Your task to perform on an android device: Open Chrome and go to settings Image 0: 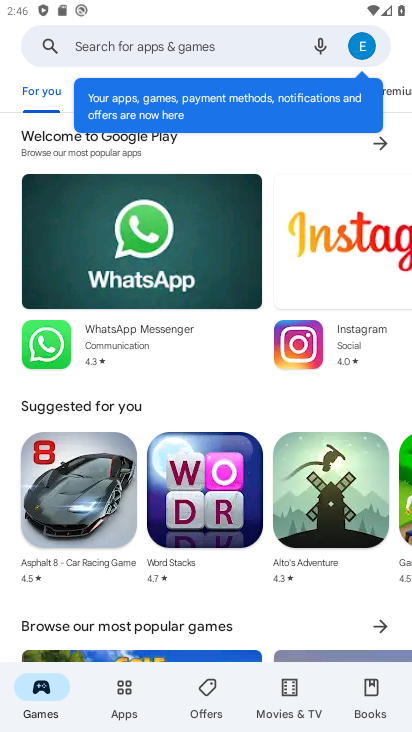
Step 0: press back button
Your task to perform on an android device: Open Chrome and go to settings Image 1: 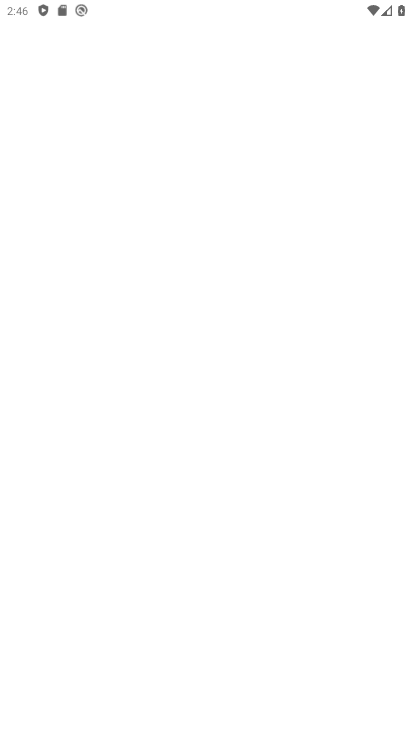
Step 1: press back button
Your task to perform on an android device: Open Chrome and go to settings Image 2: 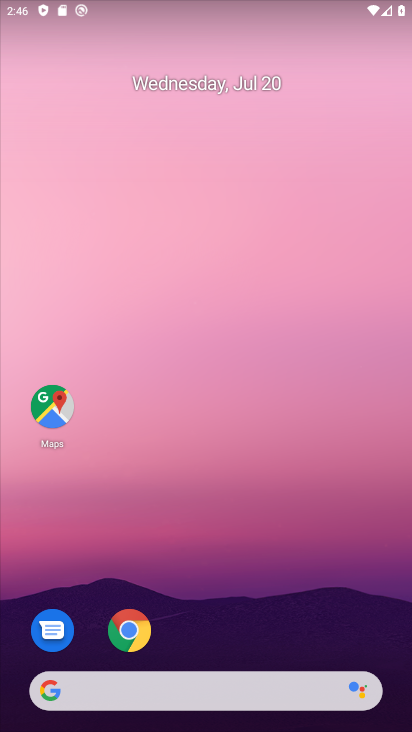
Step 2: drag from (280, 403) to (280, 139)
Your task to perform on an android device: Open Chrome and go to settings Image 3: 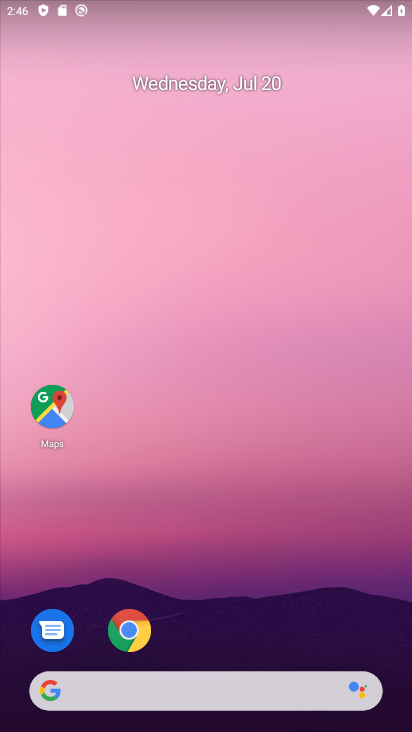
Step 3: drag from (253, 545) to (241, 58)
Your task to perform on an android device: Open Chrome and go to settings Image 4: 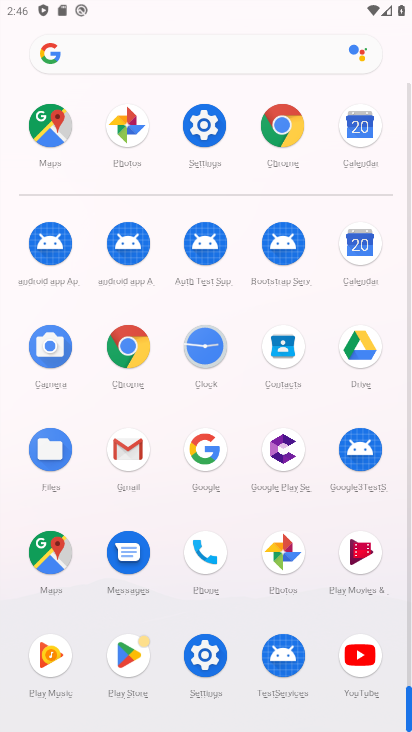
Step 4: click (208, 128)
Your task to perform on an android device: Open Chrome and go to settings Image 5: 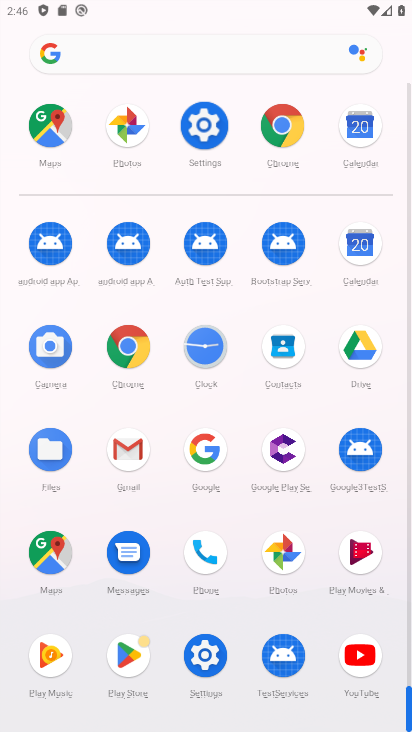
Step 5: click (208, 128)
Your task to perform on an android device: Open Chrome and go to settings Image 6: 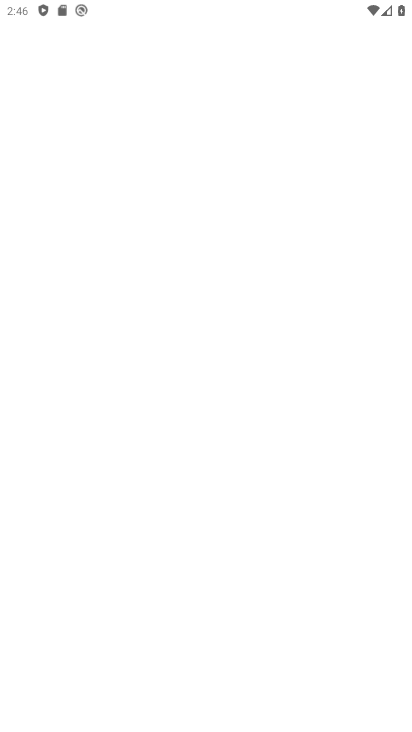
Step 6: click (208, 128)
Your task to perform on an android device: Open Chrome and go to settings Image 7: 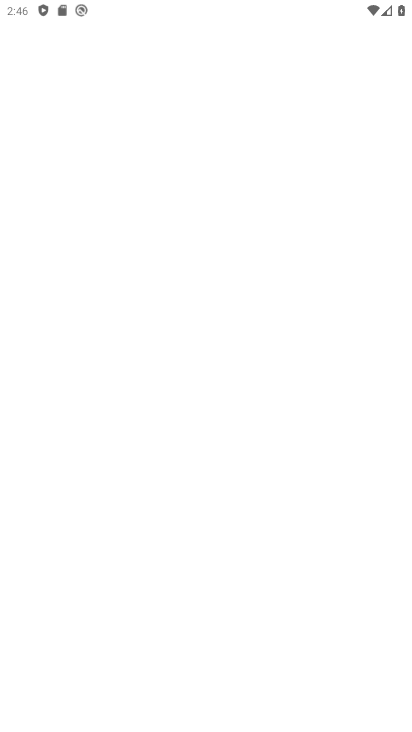
Step 7: click (208, 128)
Your task to perform on an android device: Open Chrome and go to settings Image 8: 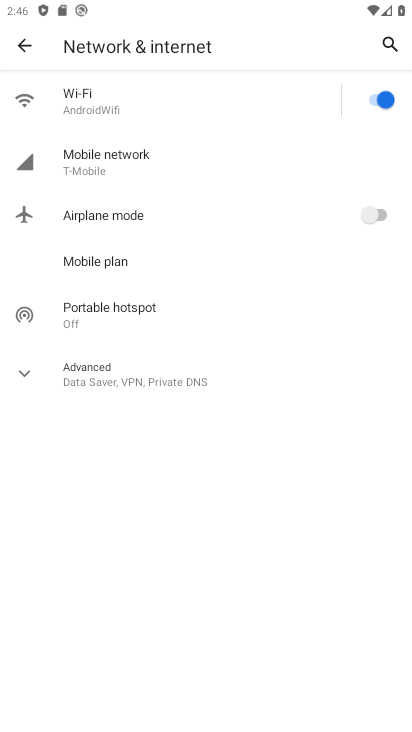
Step 8: click (25, 45)
Your task to perform on an android device: Open Chrome and go to settings Image 9: 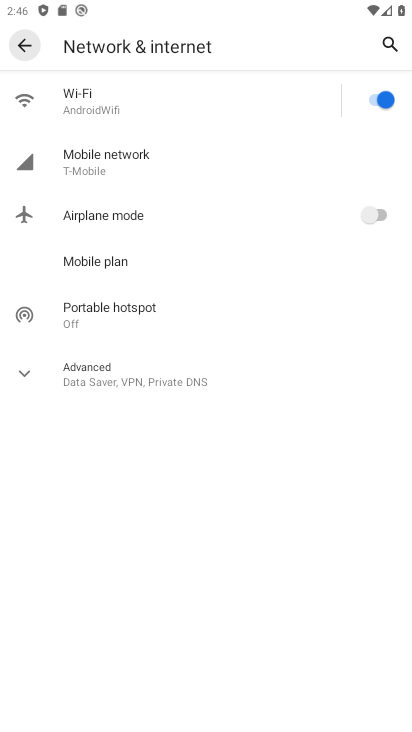
Step 9: click (25, 45)
Your task to perform on an android device: Open Chrome and go to settings Image 10: 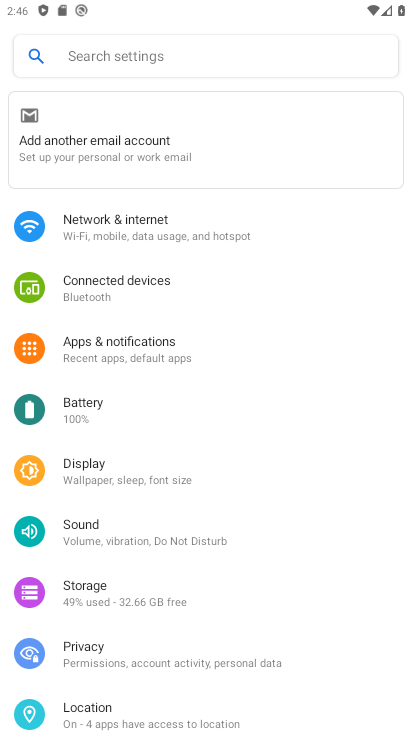
Step 10: press back button
Your task to perform on an android device: Open Chrome and go to settings Image 11: 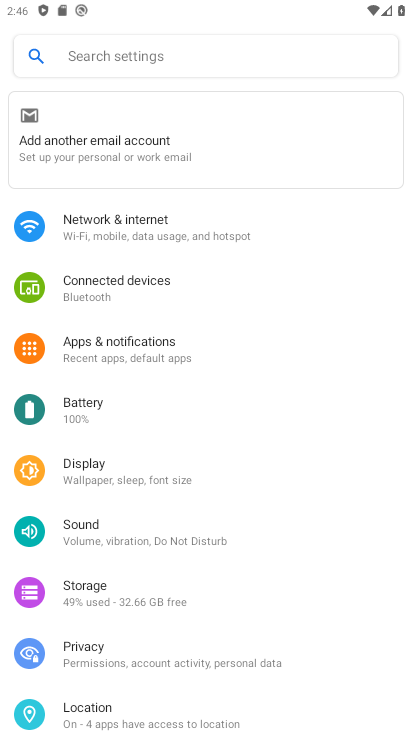
Step 11: press back button
Your task to perform on an android device: Open Chrome and go to settings Image 12: 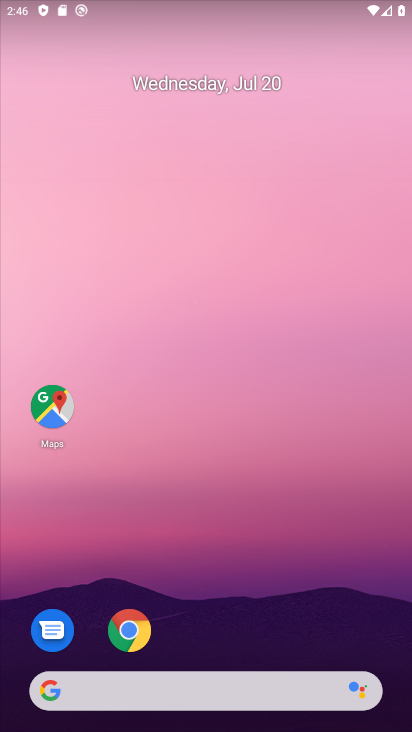
Step 12: drag from (237, 631) to (197, 86)
Your task to perform on an android device: Open Chrome and go to settings Image 13: 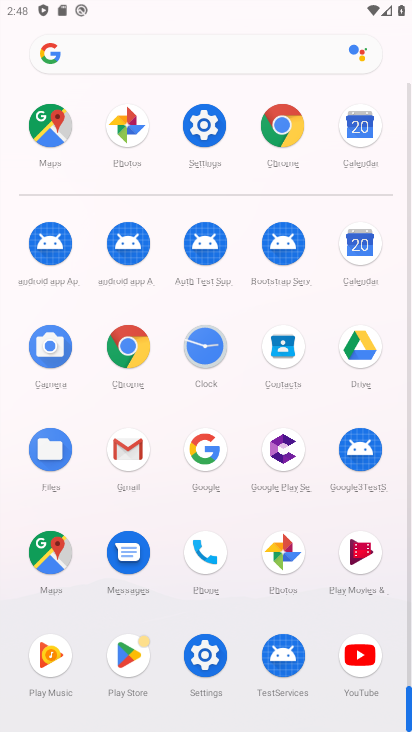
Step 13: click (204, 123)
Your task to perform on an android device: Open Chrome and go to settings Image 14: 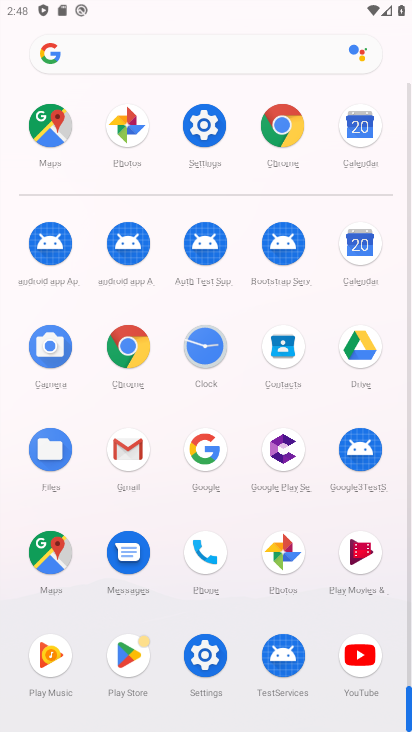
Step 14: click (204, 124)
Your task to perform on an android device: Open Chrome and go to settings Image 15: 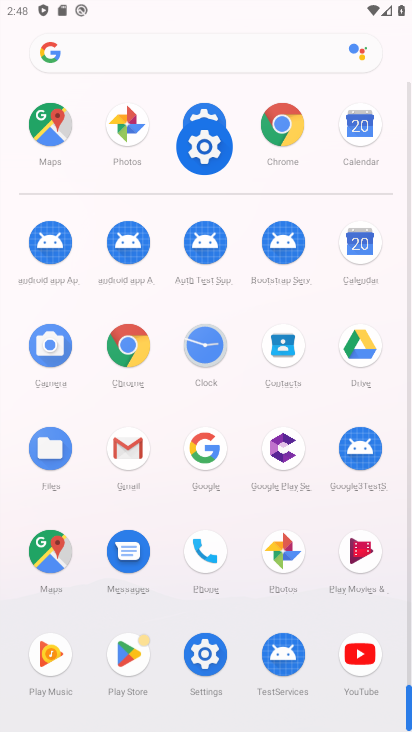
Step 15: click (204, 124)
Your task to perform on an android device: Open Chrome and go to settings Image 16: 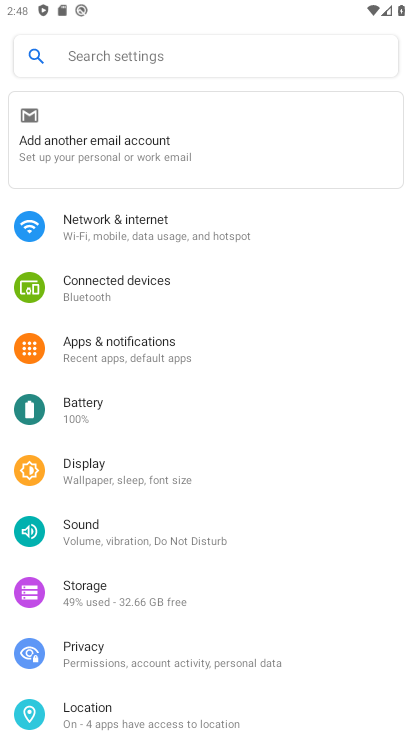
Step 16: press back button
Your task to perform on an android device: Open Chrome and go to settings Image 17: 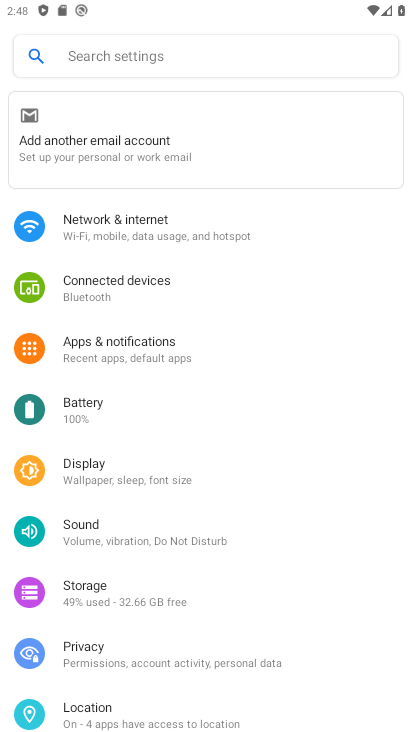
Step 17: press back button
Your task to perform on an android device: Open Chrome and go to settings Image 18: 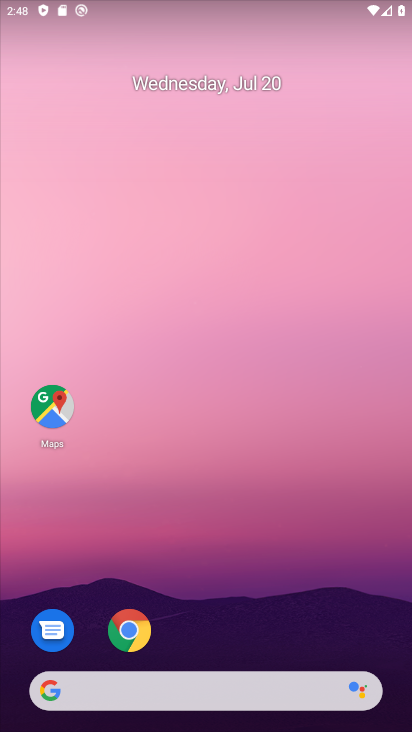
Step 18: drag from (207, 548) to (148, 206)
Your task to perform on an android device: Open Chrome and go to settings Image 19: 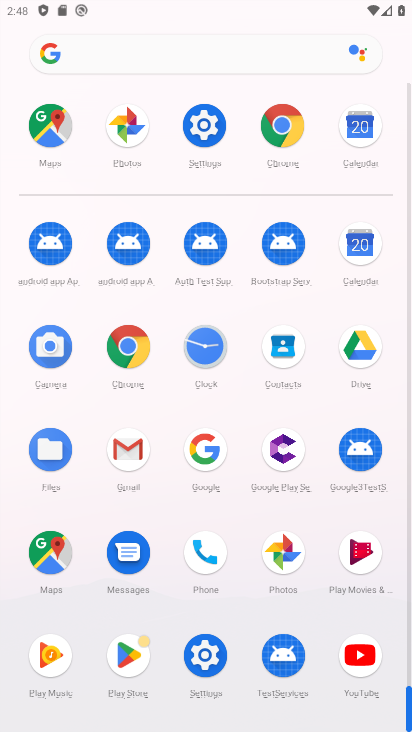
Step 19: click (286, 122)
Your task to perform on an android device: Open Chrome and go to settings Image 20: 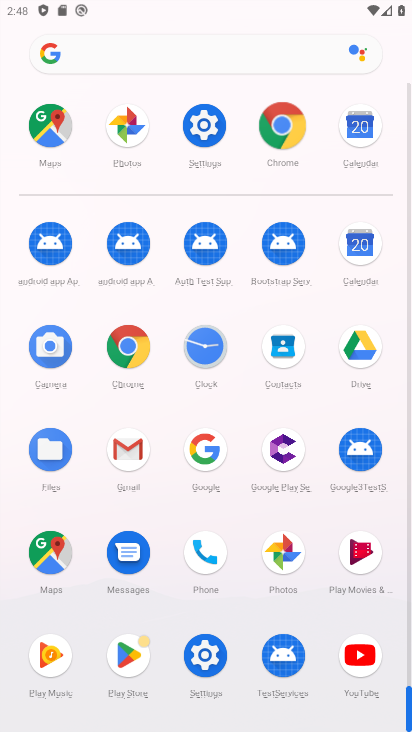
Step 20: click (286, 123)
Your task to perform on an android device: Open Chrome and go to settings Image 21: 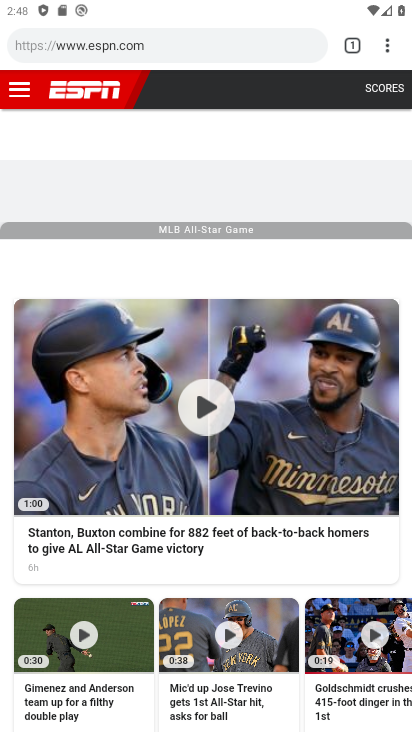
Step 21: drag from (385, 48) to (218, 546)
Your task to perform on an android device: Open Chrome and go to settings Image 22: 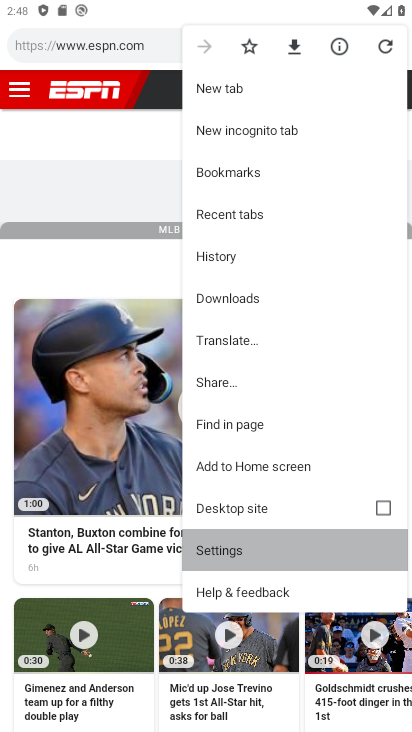
Step 22: click (221, 545)
Your task to perform on an android device: Open Chrome and go to settings Image 23: 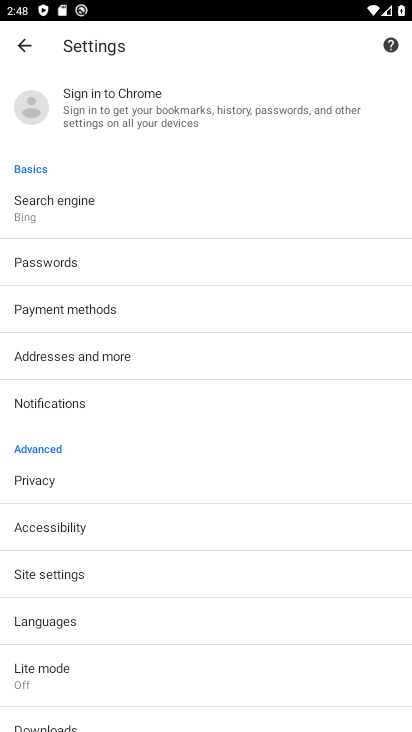
Step 23: task complete